Your task to perform on an android device: Go to CNN.com Image 0: 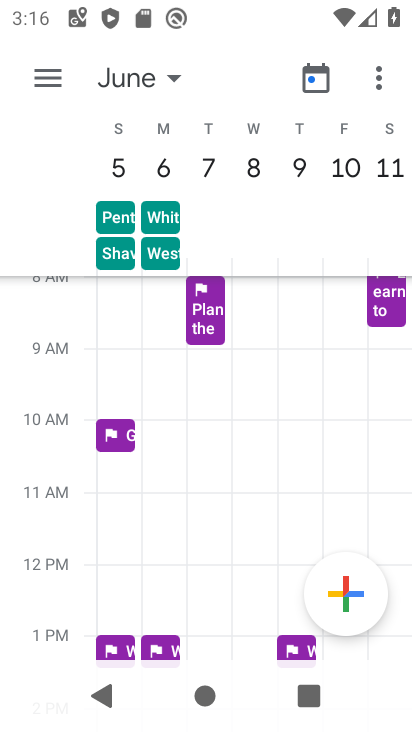
Step 0: press back button
Your task to perform on an android device: Go to CNN.com Image 1: 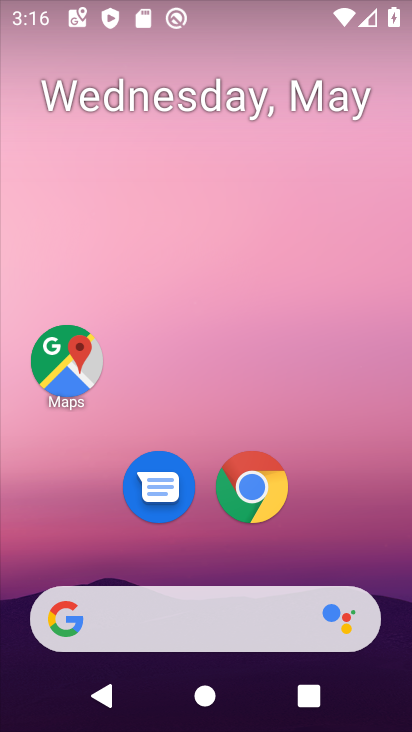
Step 1: drag from (354, 536) to (269, 37)
Your task to perform on an android device: Go to CNN.com Image 2: 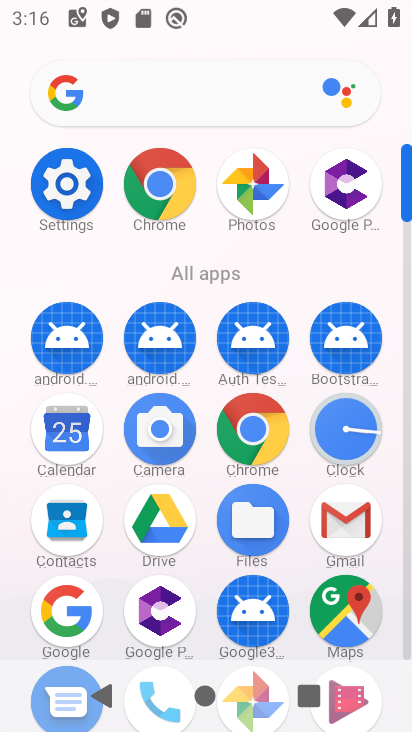
Step 2: click (155, 183)
Your task to perform on an android device: Go to CNN.com Image 3: 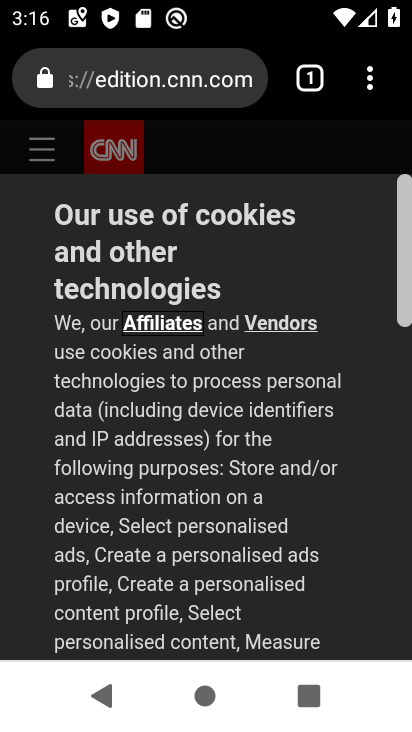
Step 3: click (175, 73)
Your task to perform on an android device: Go to CNN.com Image 4: 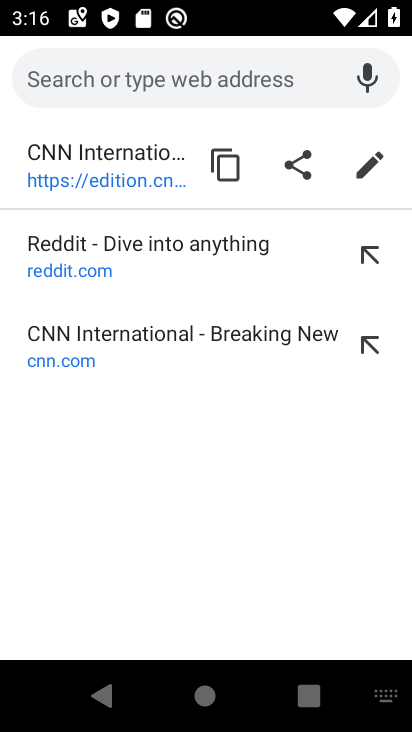
Step 4: click (96, 157)
Your task to perform on an android device: Go to CNN.com Image 5: 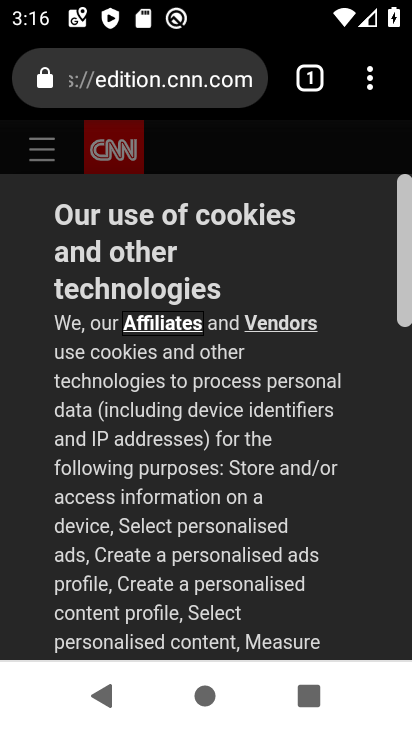
Step 5: task complete